Your task to perform on an android device: move an email to a new category in the gmail app Image 0: 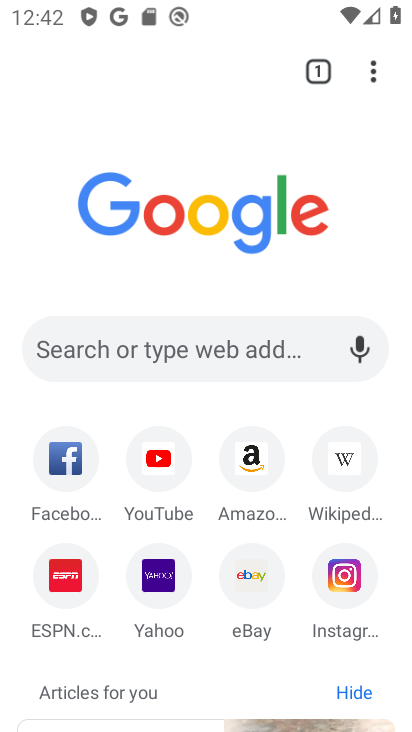
Step 0: press back button
Your task to perform on an android device: move an email to a new category in the gmail app Image 1: 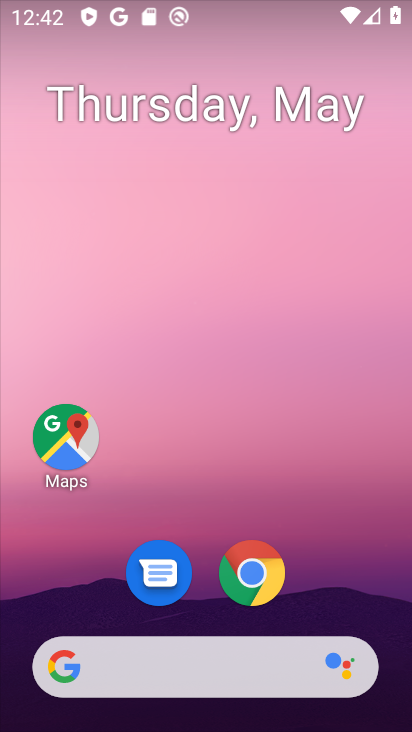
Step 1: drag from (324, 588) to (234, 23)
Your task to perform on an android device: move an email to a new category in the gmail app Image 2: 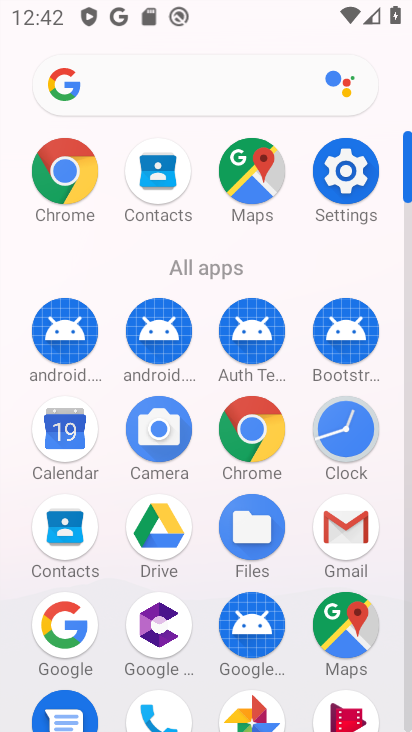
Step 2: drag from (11, 574) to (10, 350)
Your task to perform on an android device: move an email to a new category in the gmail app Image 3: 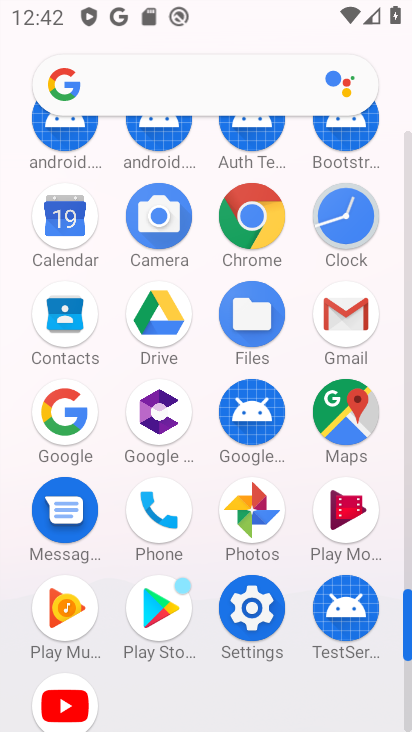
Step 3: click (346, 303)
Your task to perform on an android device: move an email to a new category in the gmail app Image 4: 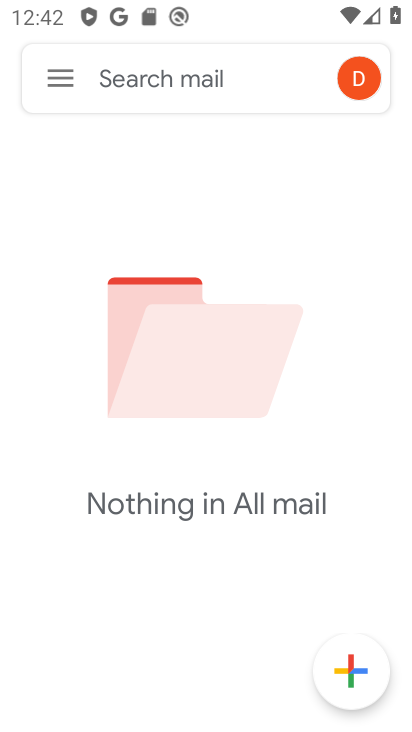
Step 4: click (64, 60)
Your task to perform on an android device: move an email to a new category in the gmail app Image 5: 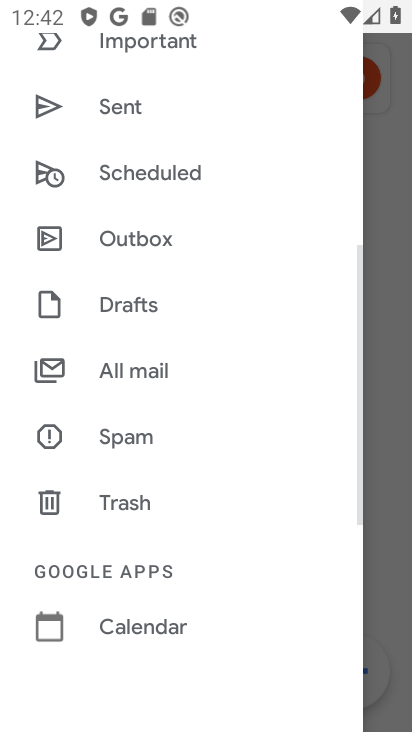
Step 5: click (161, 368)
Your task to perform on an android device: move an email to a new category in the gmail app Image 6: 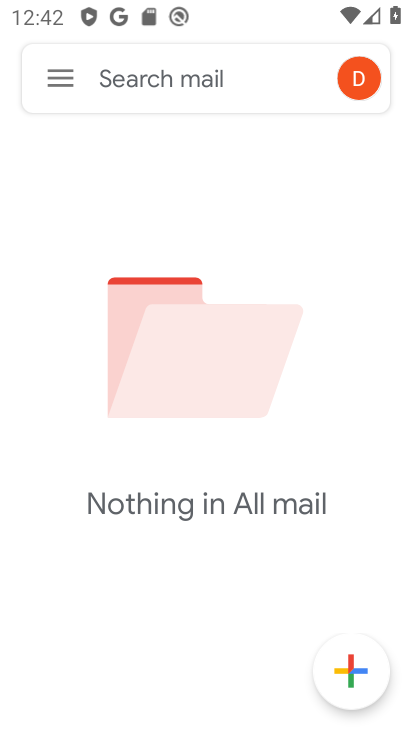
Step 6: click (58, 75)
Your task to perform on an android device: move an email to a new category in the gmail app Image 7: 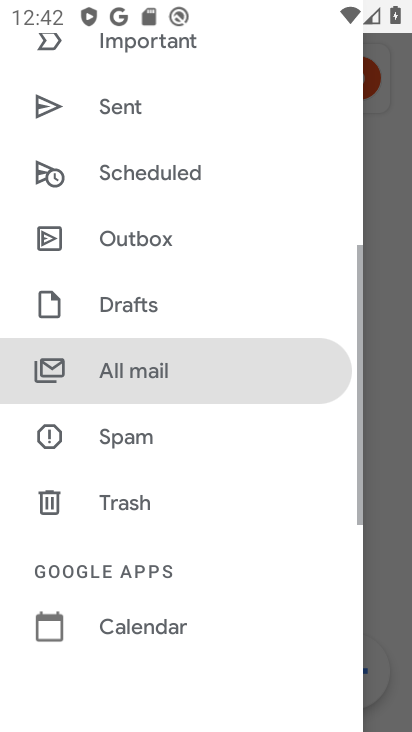
Step 7: drag from (218, 203) to (244, 627)
Your task to perform on an android device: move an email to a new category in the gmail app Image 8: 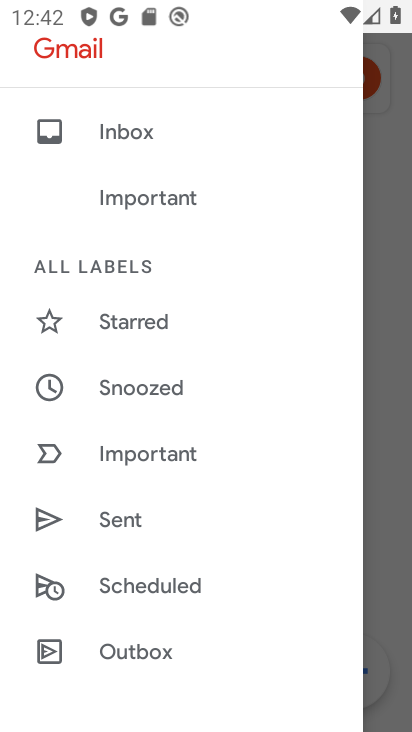
Step 8: click (158, 140)
Your task to perform on an android device: move an email to a new category in the gmail app Image 9: 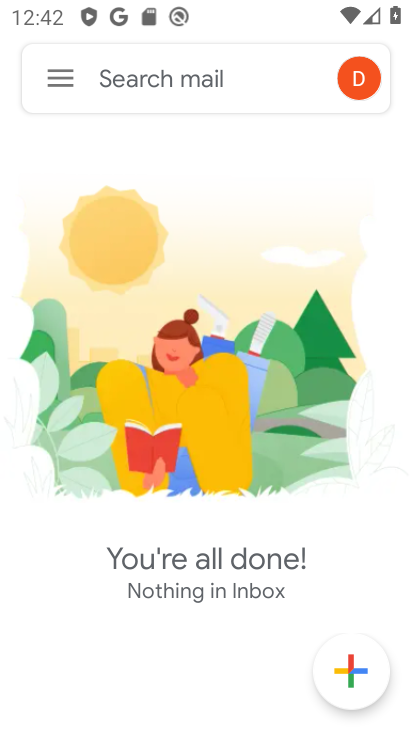
Step 9: click (68, 77)
Your task to perform on an android device: move an email to a new category in the gmail app Image 10: 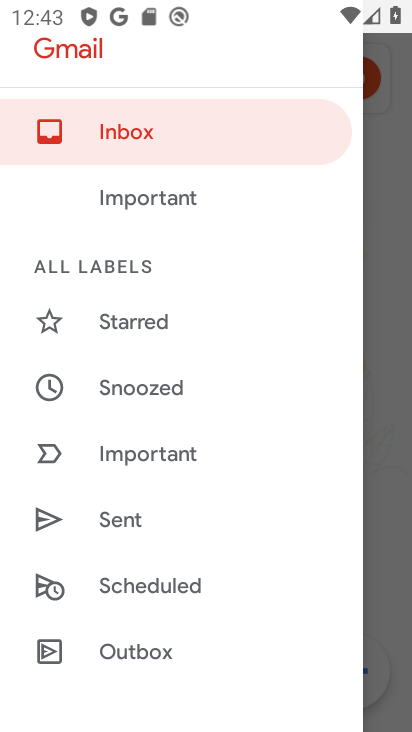
Step 10: click (148, 322)
Your task to perform on an android device: move an email to a new category in the gmail app Image 11: 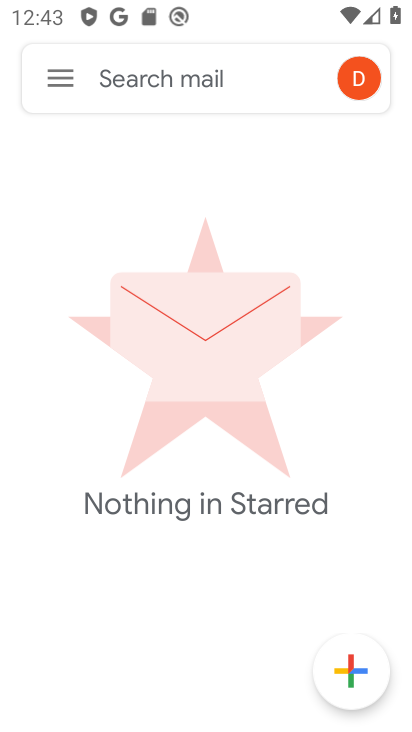
Step 11: click (57, 74)
Your task to perform on an android device: move an email to a new category in the gmail app Image 12: 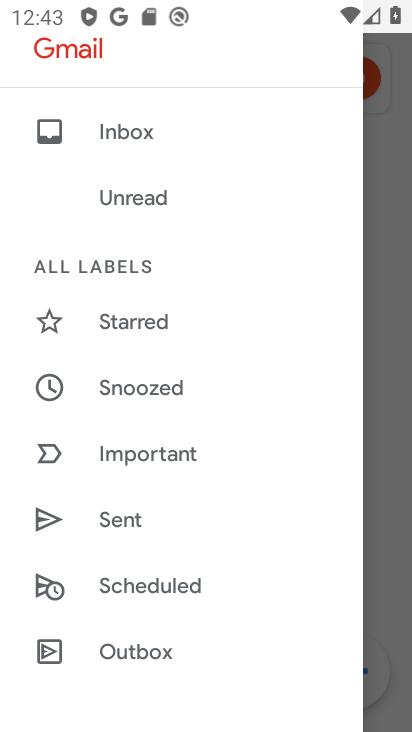
Step 12: drag from (189, 259) to (209, 611)
Your task to perform on an android device: move an email to a new category in the gmail app Image 13: 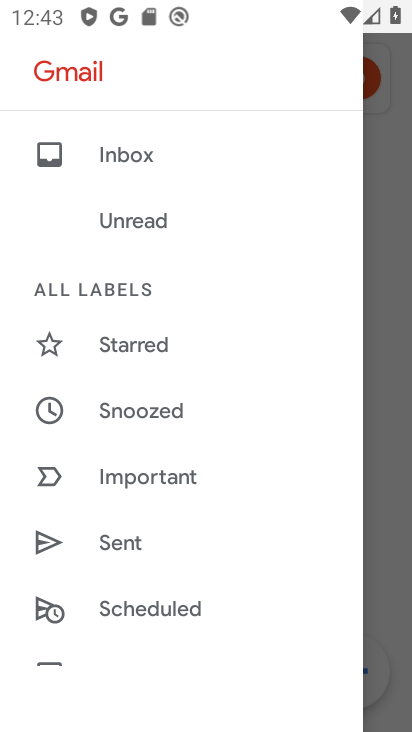
Step 13: drag from (163, 166) to (179, 581)
Your task to perform on an android device: move an email to a new category in the gmail app Image 14: 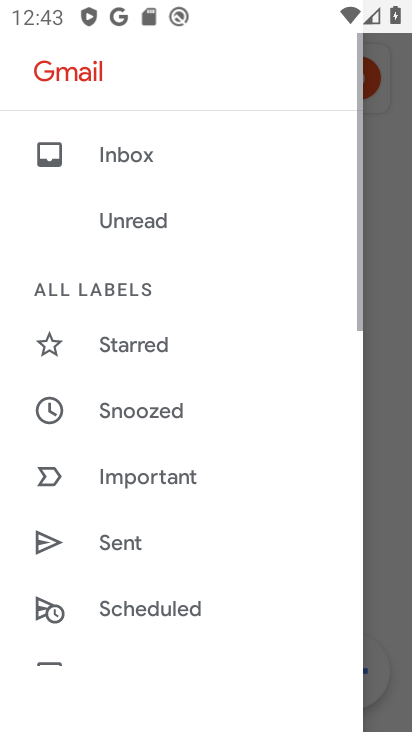
Step 14: drag from (179, 571) to (174, 201)
Your task to perform on an android device: move an email to a new category in the gmail app Image 15: 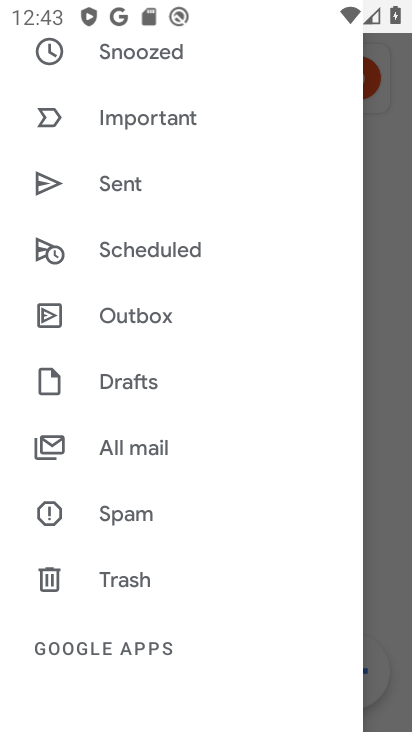
Step 15: click (143, 434)
Your task to perform on an android device: move an email to a new category in the gmail app Image 16: 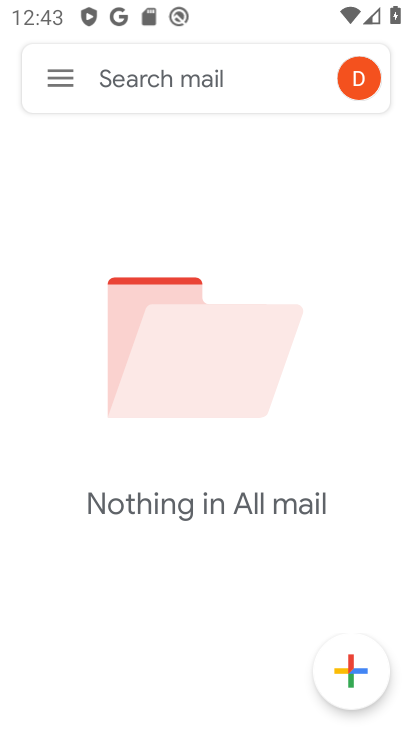
Step 16: click (62, 80)
Your task to perform on an android device: move an email to a new category in the gmail app Image 17: 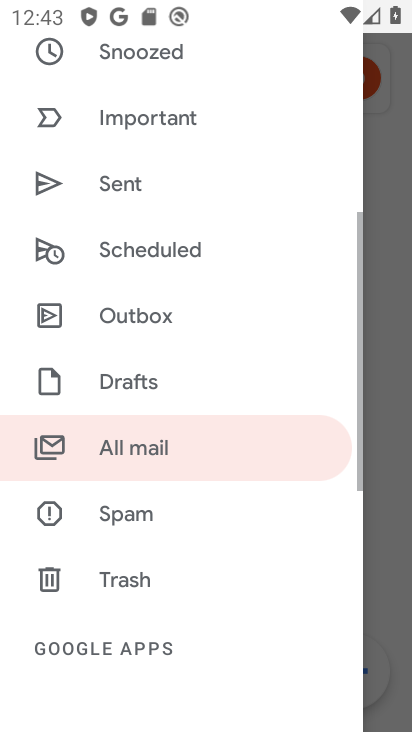
Step 17: drag from (194, 113) to (233, 594)
Your task to perform on an android device: move an email to a new category in the gmail app Image 18: 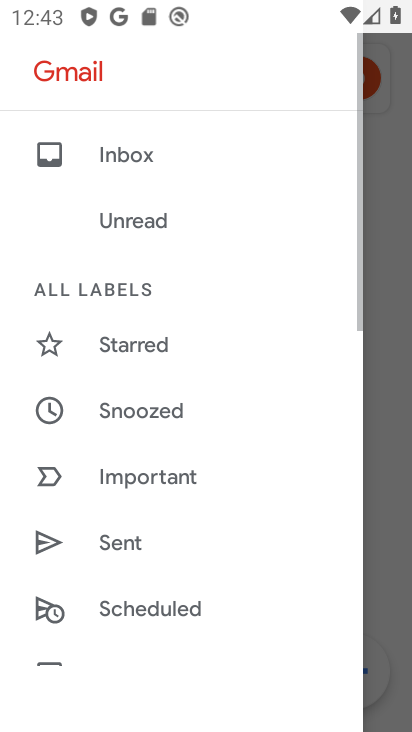
Step 18: click (151, 140)
Your task to perform on an android device: move an email to a new category in the gmail app Image 19: 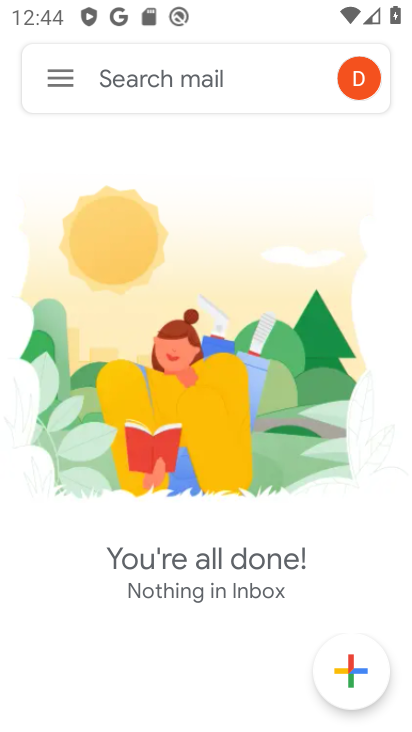
Step 19: task complete